Your task to perform on an android device: toggle airplane mode Image 0: 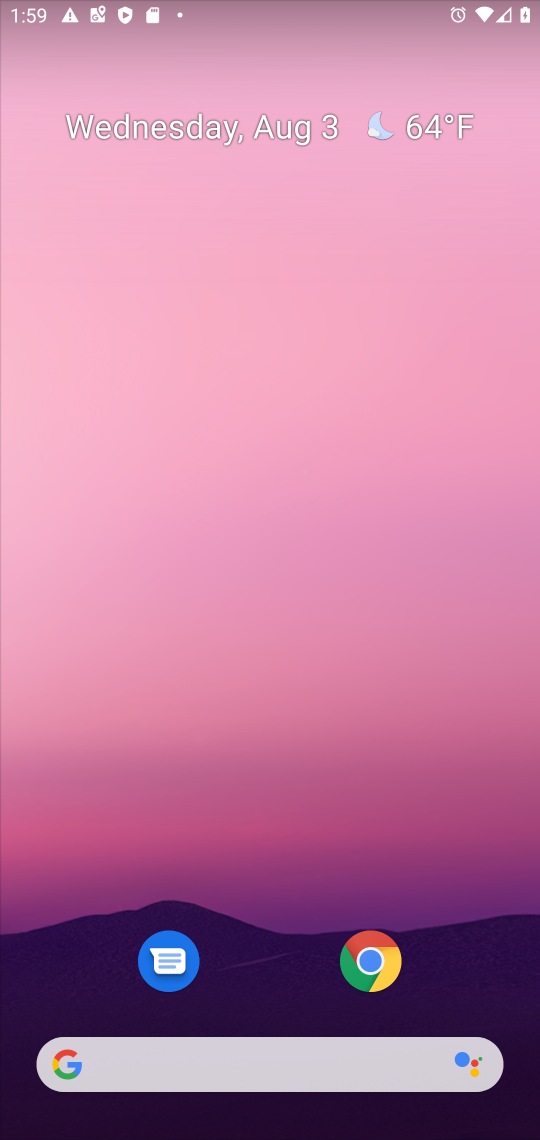
Step 0: drag from (281, 798) to (309, 33)
Your task to perform on an android device: toggle airplane mode Image 1: 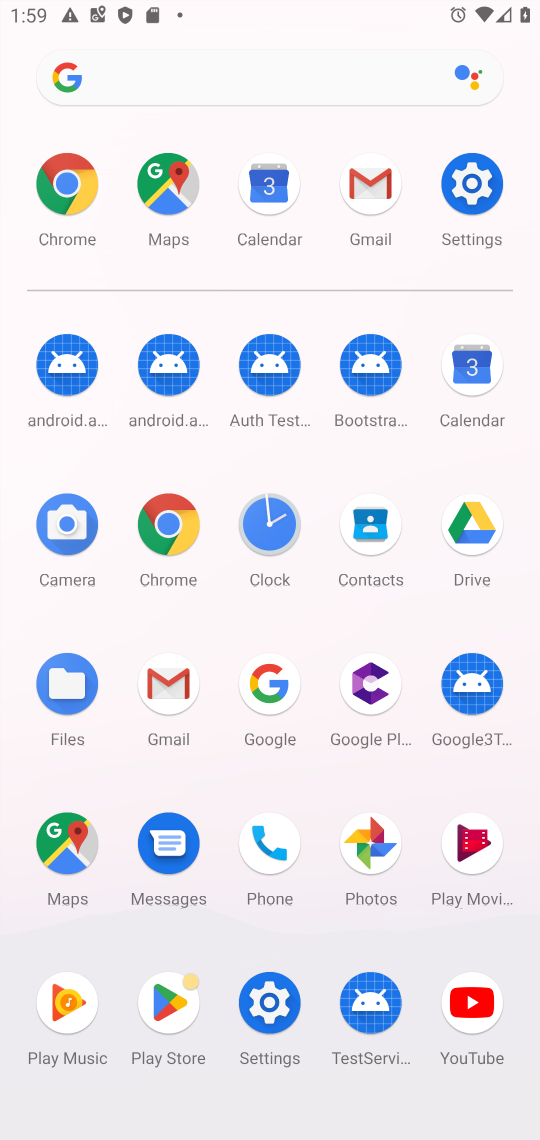
Step 1: click (470, 192)
Your task to perform on an android device: toggle airplane mode Image 2: 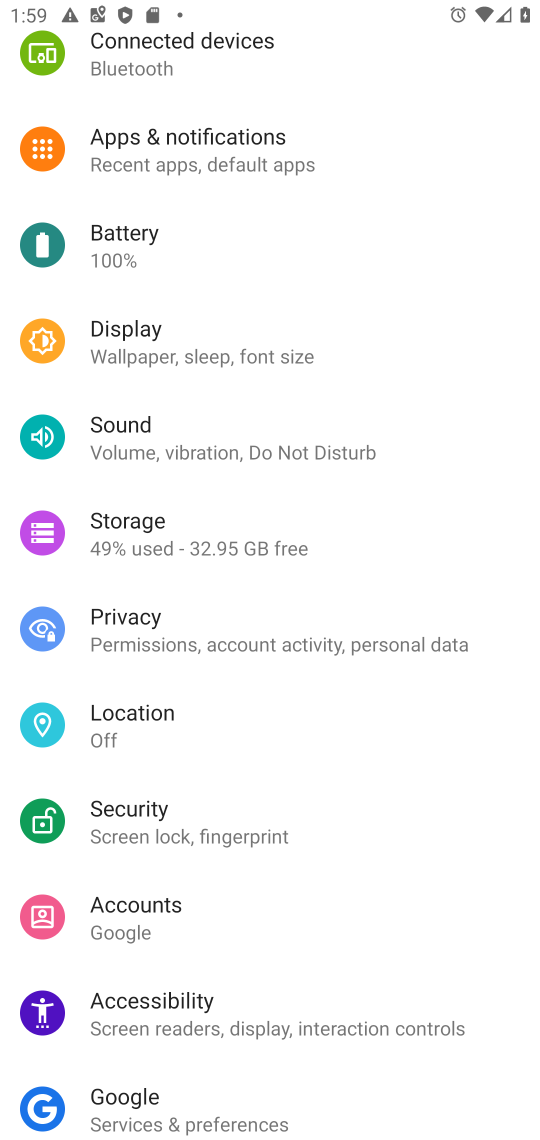
Step 2: drag from (438, 169) to (468, 575)
Your task to perform on an android device: toggle airplane mode Image 3: 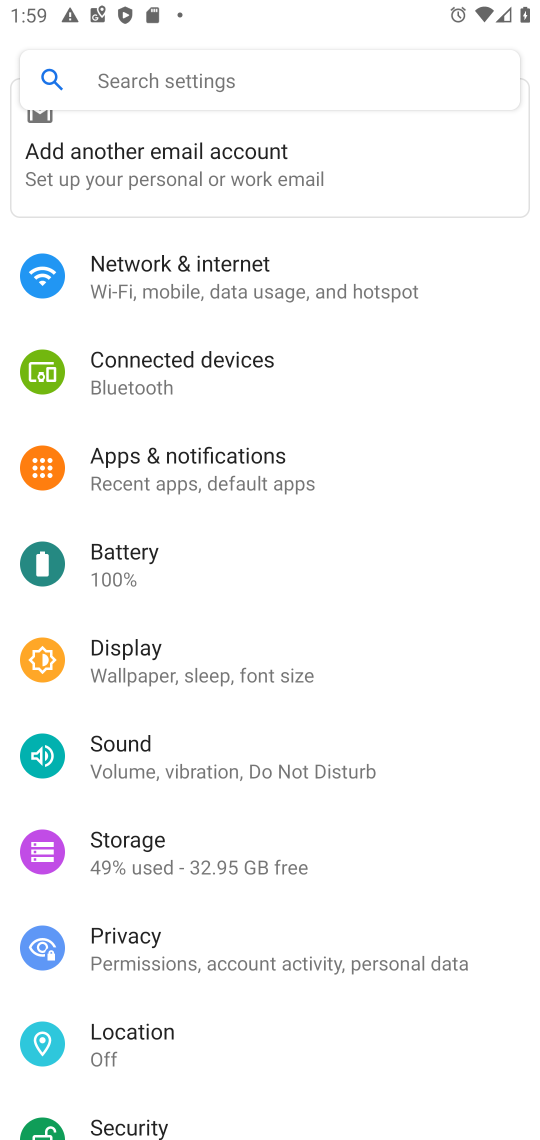
Step 3: click (156, 281)
Your task to perform on an android device: toggle airplane mode Image 4: 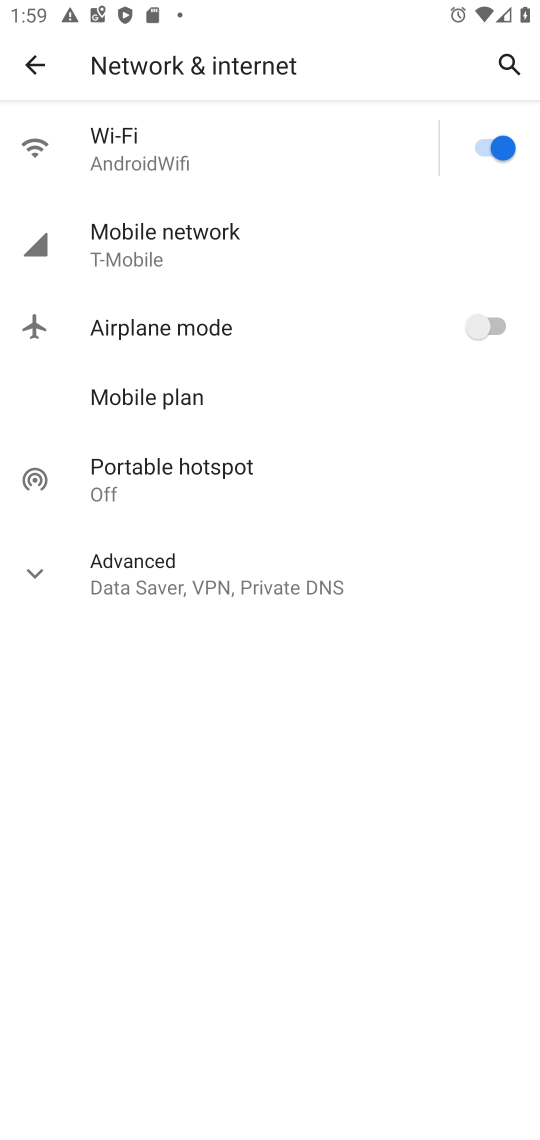
Step 4: click (477, 325)
Your task to perform on an android device: toggle airplane mode Image 5: 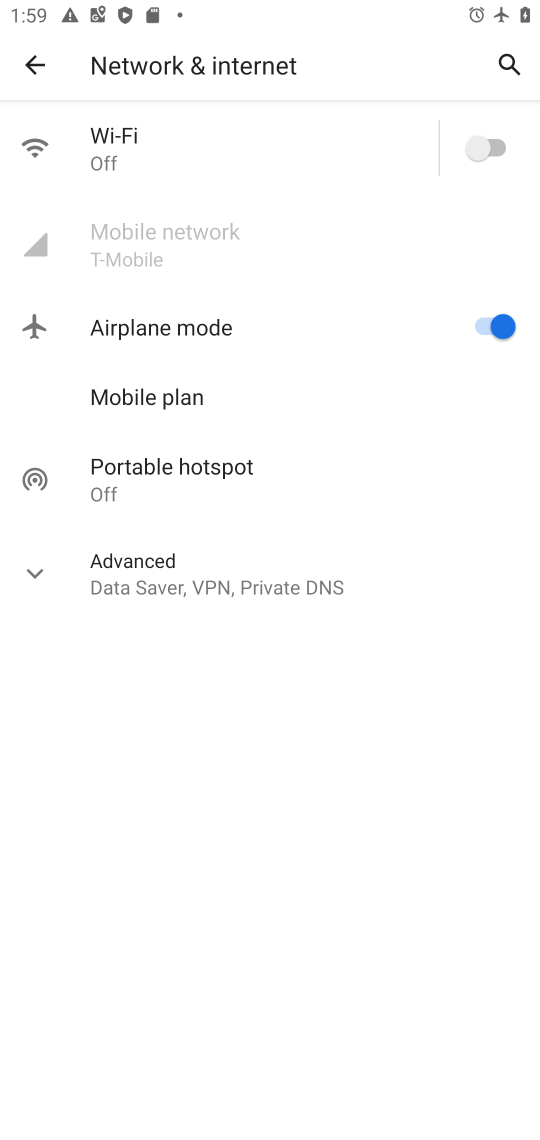
Step 5: task complete